Your task to perform on an android device: turn on the 12-hour format for clock Image 0: 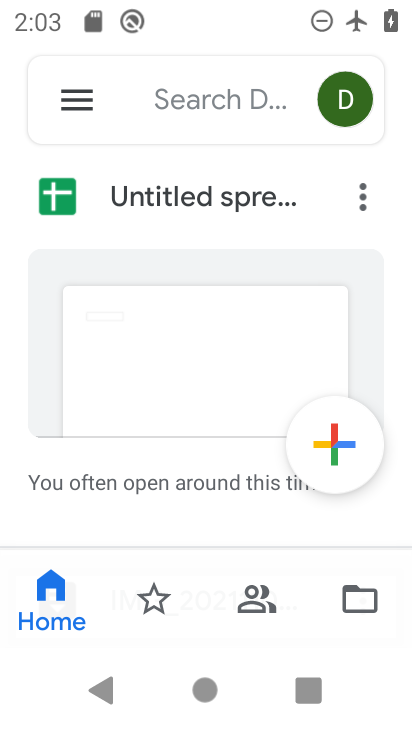
Step 0: press home button
Your task to perform on an android device: turn on the 12-hour format for clock Image 1: 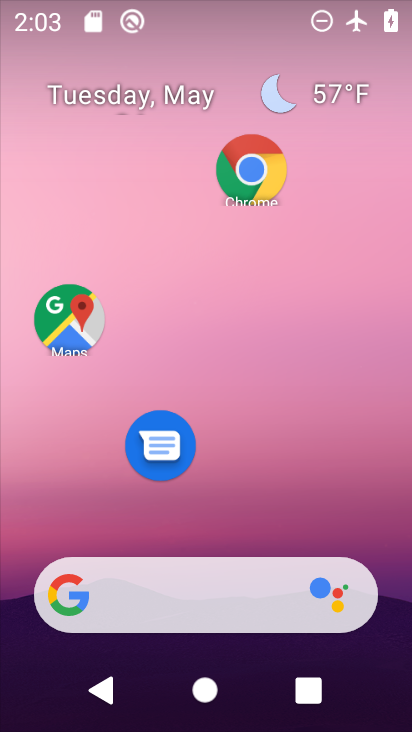
Step 1: drag from (226, 724) to (226, 90)
Your task to perform on an android device: turn on the 12-hour format for clock Image 2: 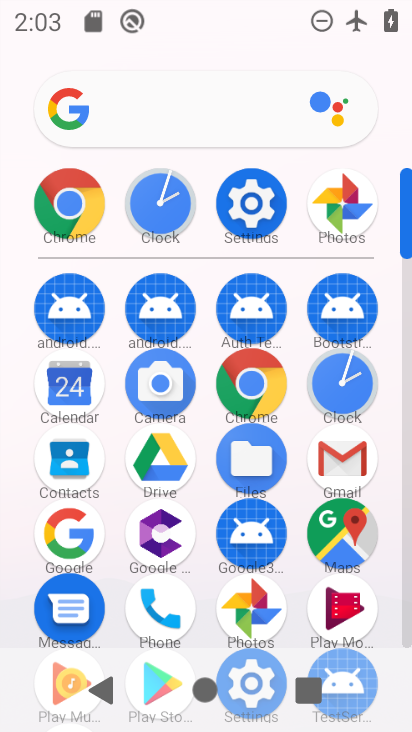
Step 2: click (334, 396)
Your task to perform on an android device: turn on the 12-hour format for clock Image 3: 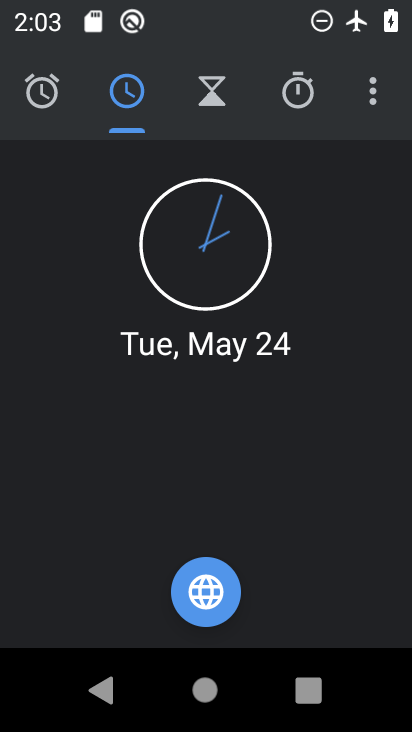
Step 3: click (375, 103)
Your task to perform on an android device: turn on the 12-hour format for clock Image 4: 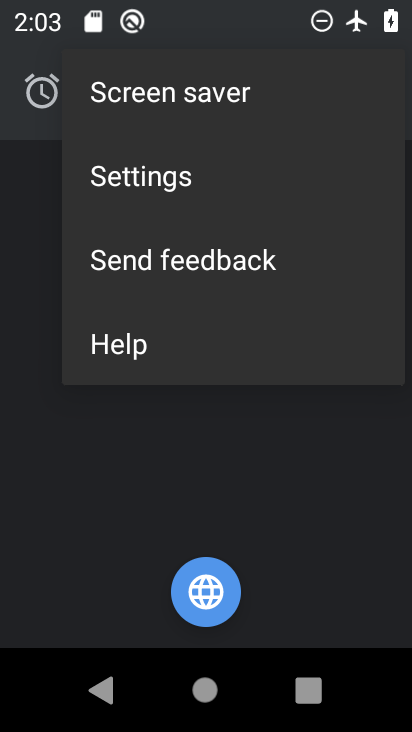
Step 4: click (120, 178)
Your task to perform on an android device: turn on the 12-hour format for clock Image 5: 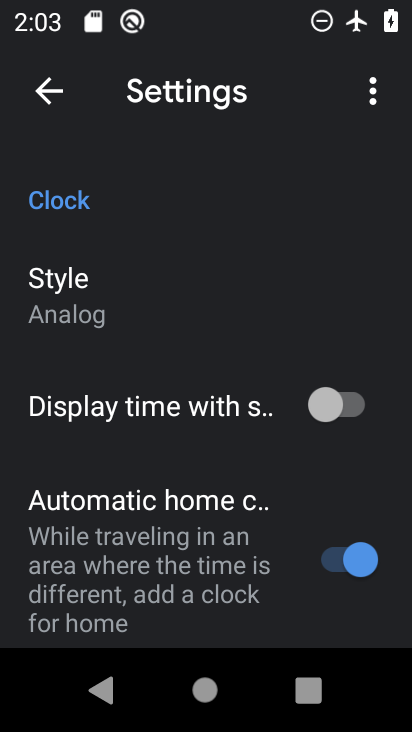
Step 5: drag from (182, 609) to (196, 254)
Your task to perform on an android device: turn on the 12-hour format for clock Image 6: 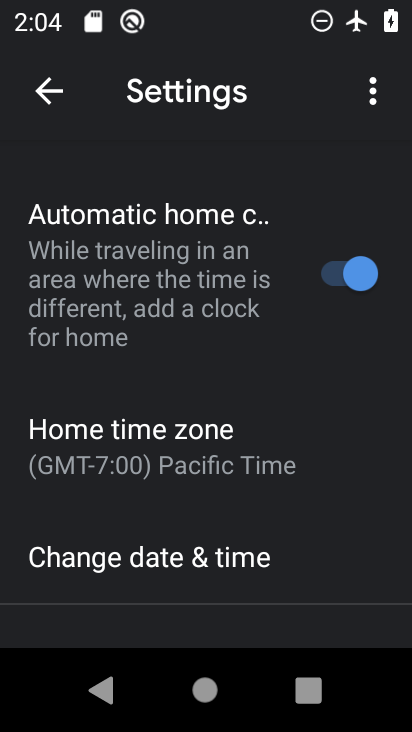
Step 6: drag from (181, 628) to (152, 202)
Your task to perform on an android device: turn on the 12-hour format for clock Image 7: 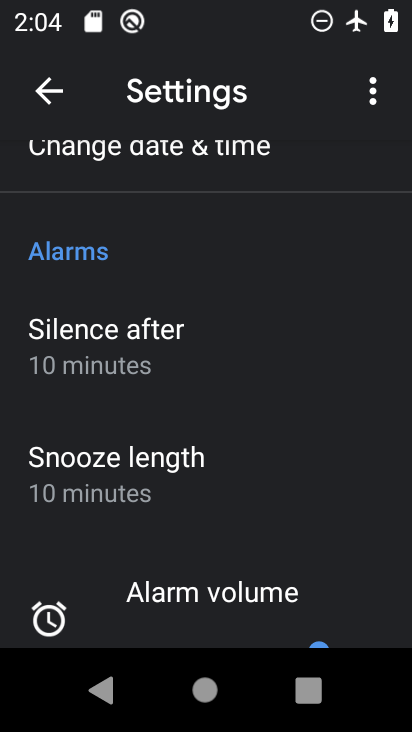
Step 7: drag from (155, 547) to (160, 261)
Your task to perform on an android device: turn on the 12-hour format for clock Image 8: 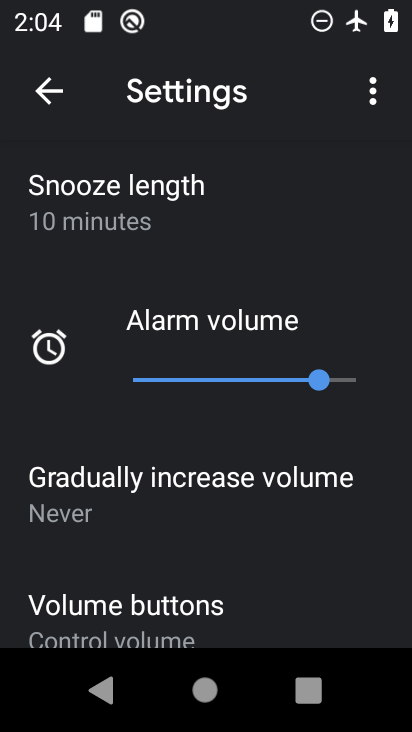
Step 8: drag from (199, 607) to (199, 227)
Your task to perform on an android device: turn on the 12-hour format for clock Image 9: 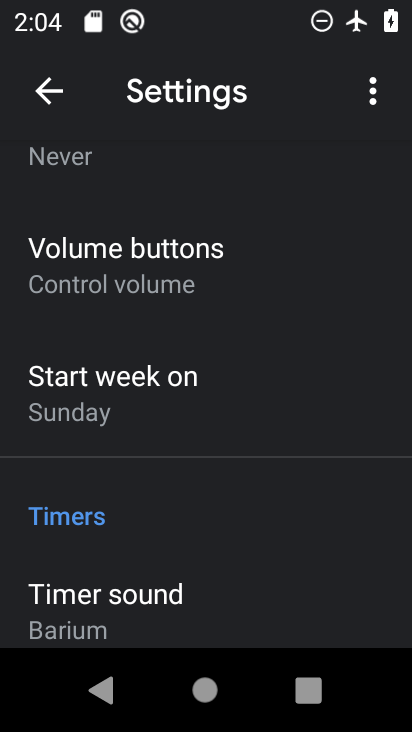
Step 9: drag from (248, 182) to (290, 520)
Your task to perform on an android device: turn on the 12-hour format for clock Image 10: 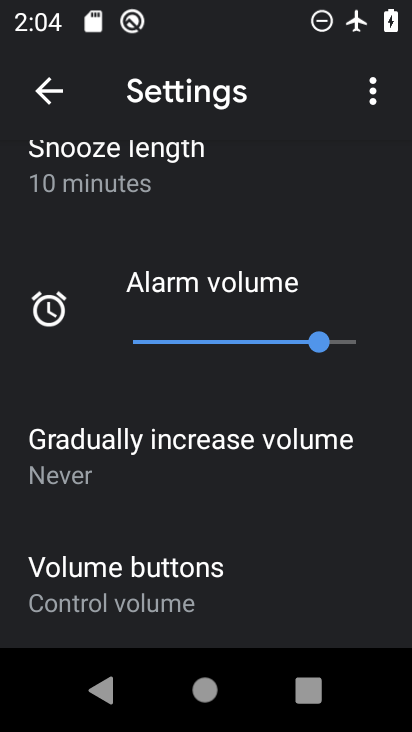
Step 10: drag from (254, 214) to (253, 633)
Your task to perform on an android device: turn on the 12-hour format for clock Image 11: 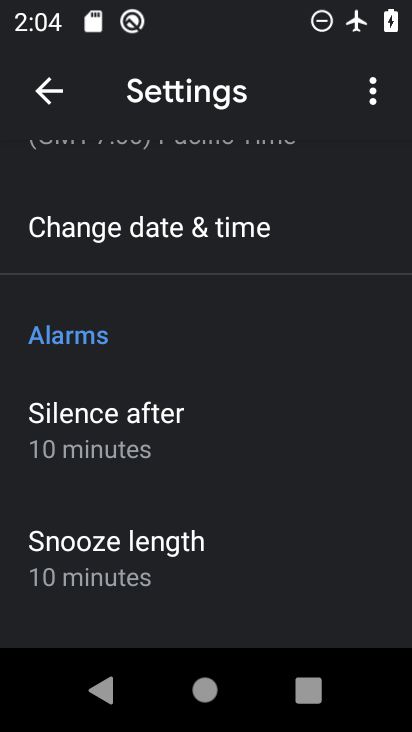
Step 11: drag from (202, 241) to (228, 499)
Your task to perform on an android device: turn on the 12-hour format for clock Image 12: 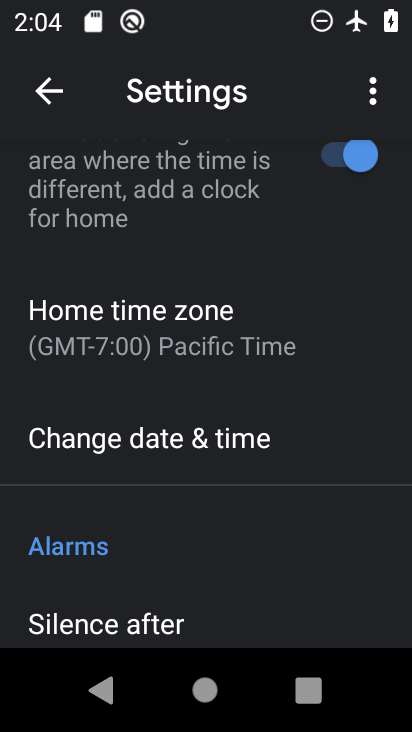
Step 12: drag from (234, 576) to (238, 238)
Your task to perform on an android device: turn on the 12-hour format for clock Image 13: 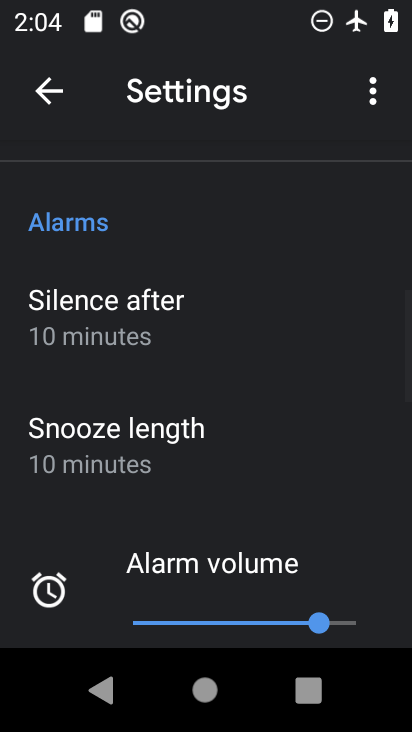
Step 13: drag from (198, 573) to (208, 252)
Your task to perform on an android device: turn on the 12-hour format for clock Image 14: 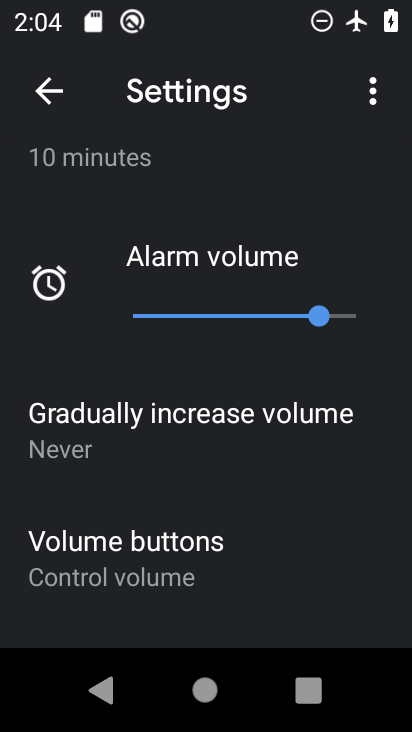
Step 14: drag from (202, 172) to (217, 592)
Your task to perform on an android device: turn on the 12-hour format for clock Image 15: 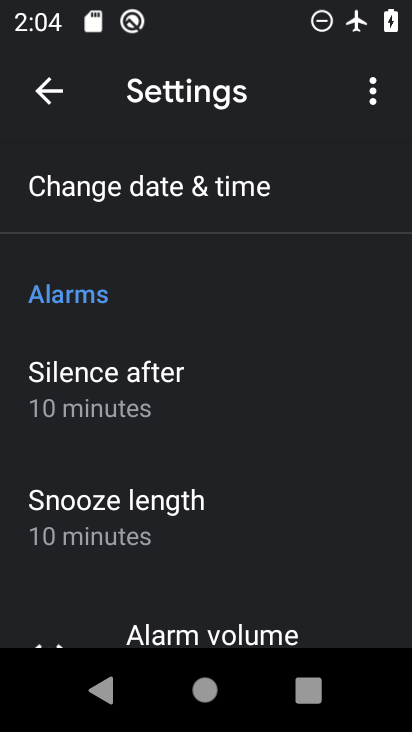
Step 15: click (200, 185)
Your task to perform on an android device: turn on the 12-hour format for clock Image 16: 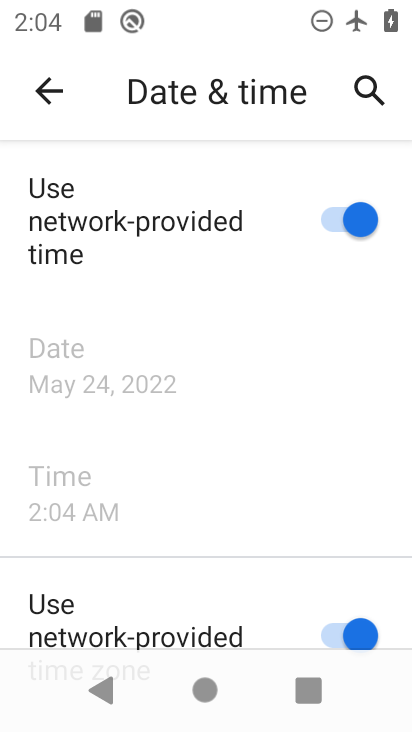
Step 16: task complete